Your task to perform on an android device: Open Chrome and go to settings Image 0: 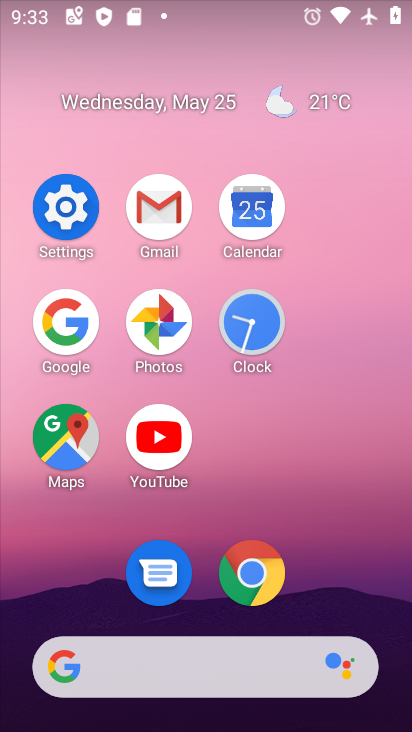
Step 0: click (268, 568)
Your task to perform on an android device: Open Chrome and go to settings Image 1: 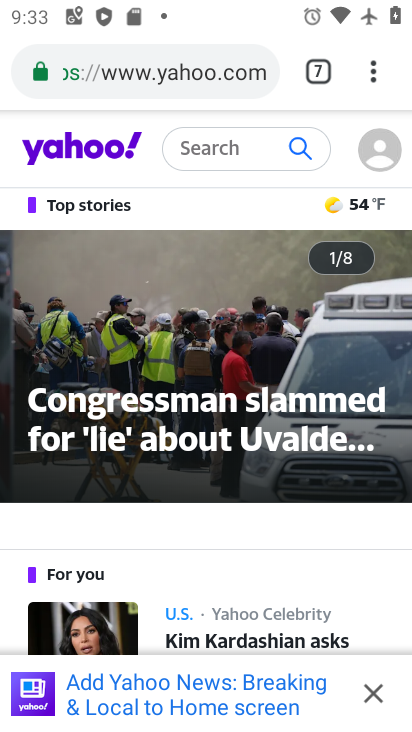
Step 1: click (379, 74)
Your task to perform on an android device: Open Chrome and go to settings Image 2: 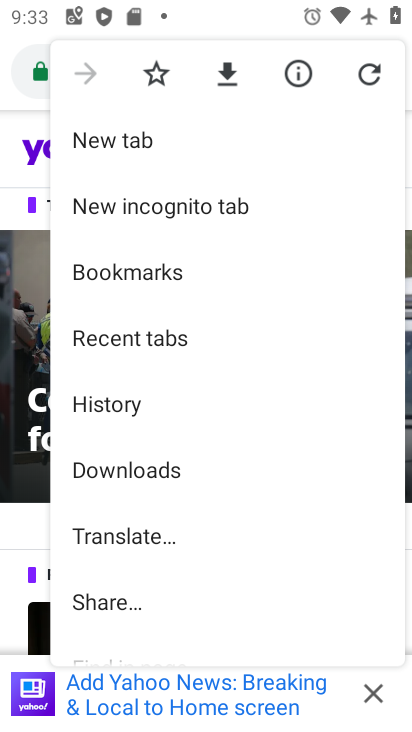
Step 2: drag from (177, 444) to (167, 166)
Your task to perform on an android device: Open Chrome and go to settings Image 3: 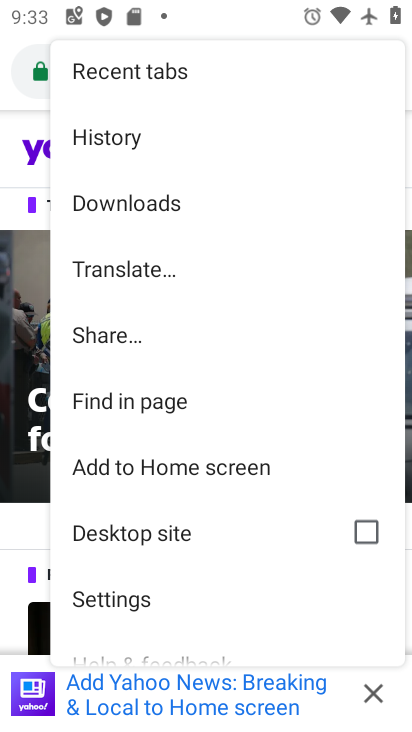
Step 3: click (162, 598)
Your task to perform on an android device: Open Chrome and go to settings Image 4: 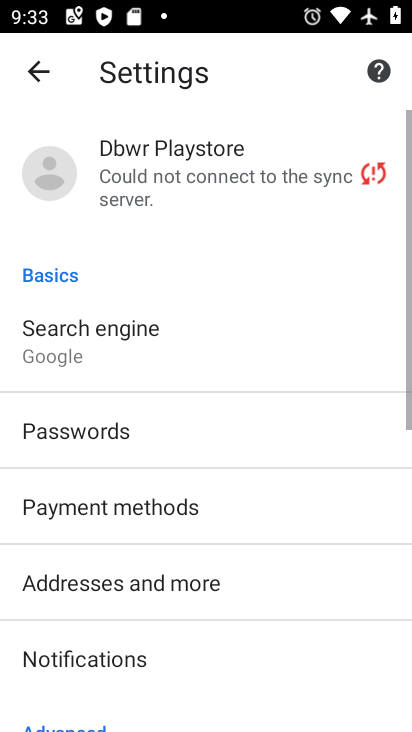
Step 4: task complete